Your task to perform on an android device: Open settings Image 0: 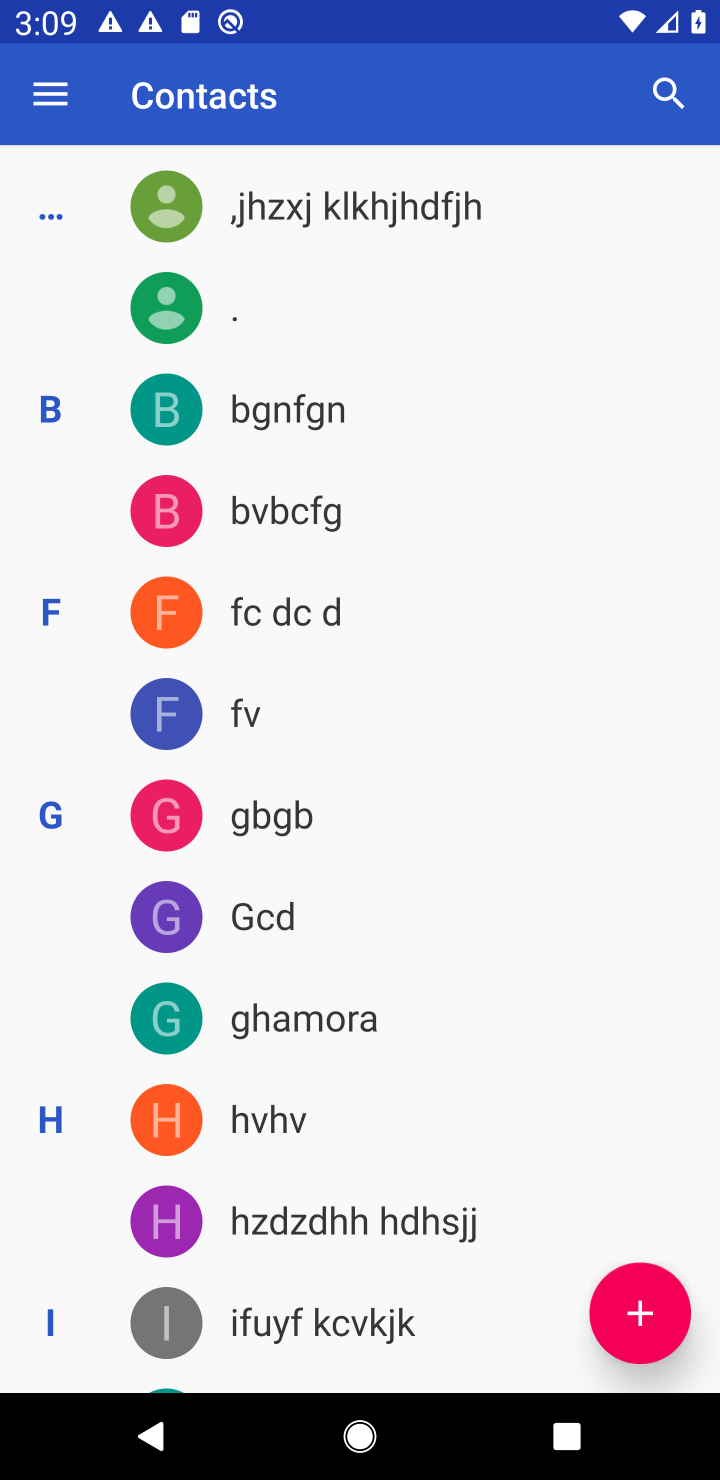
Step 0: press home button
Your task to perform on an android device: Open settings Image 1: 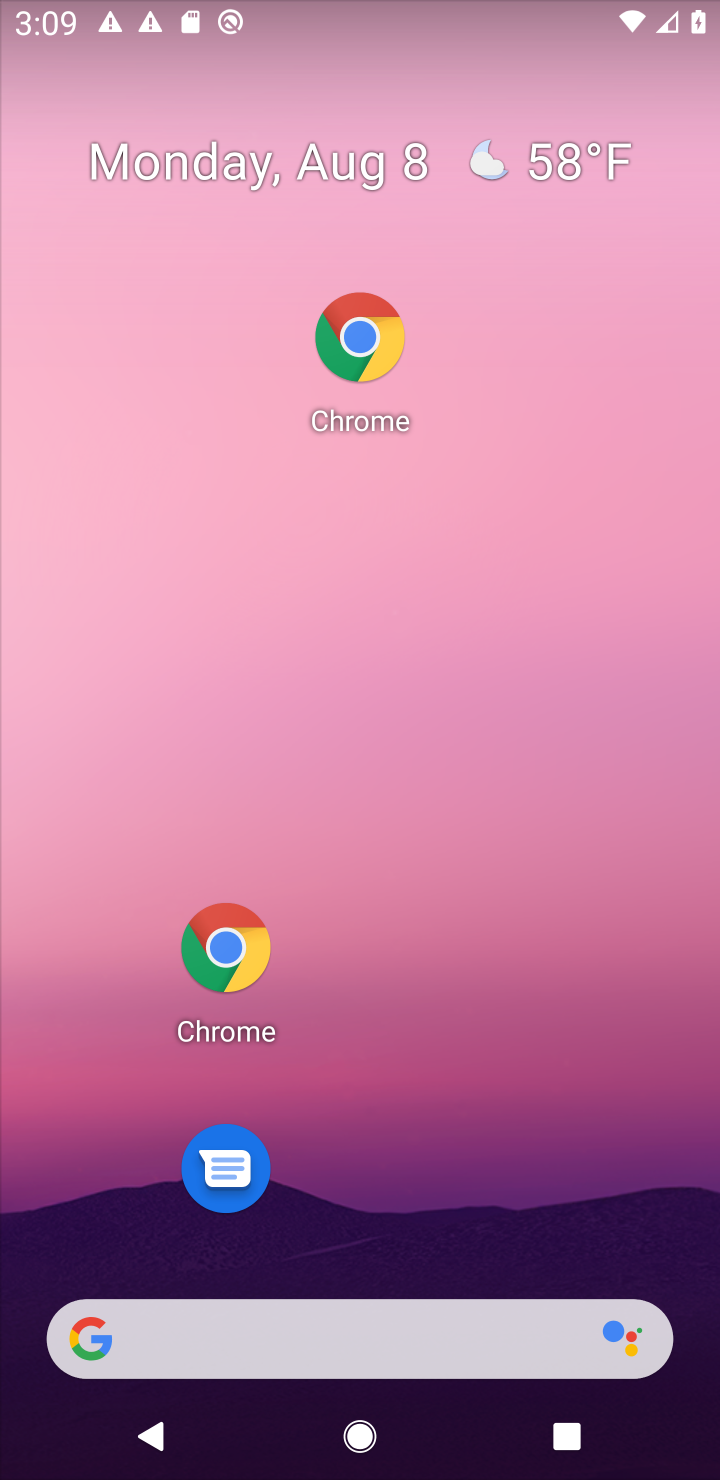
Step 1: drag from (536, 1263) to (493, 179)
Your task to perform on an android device: Open settings Image 2: 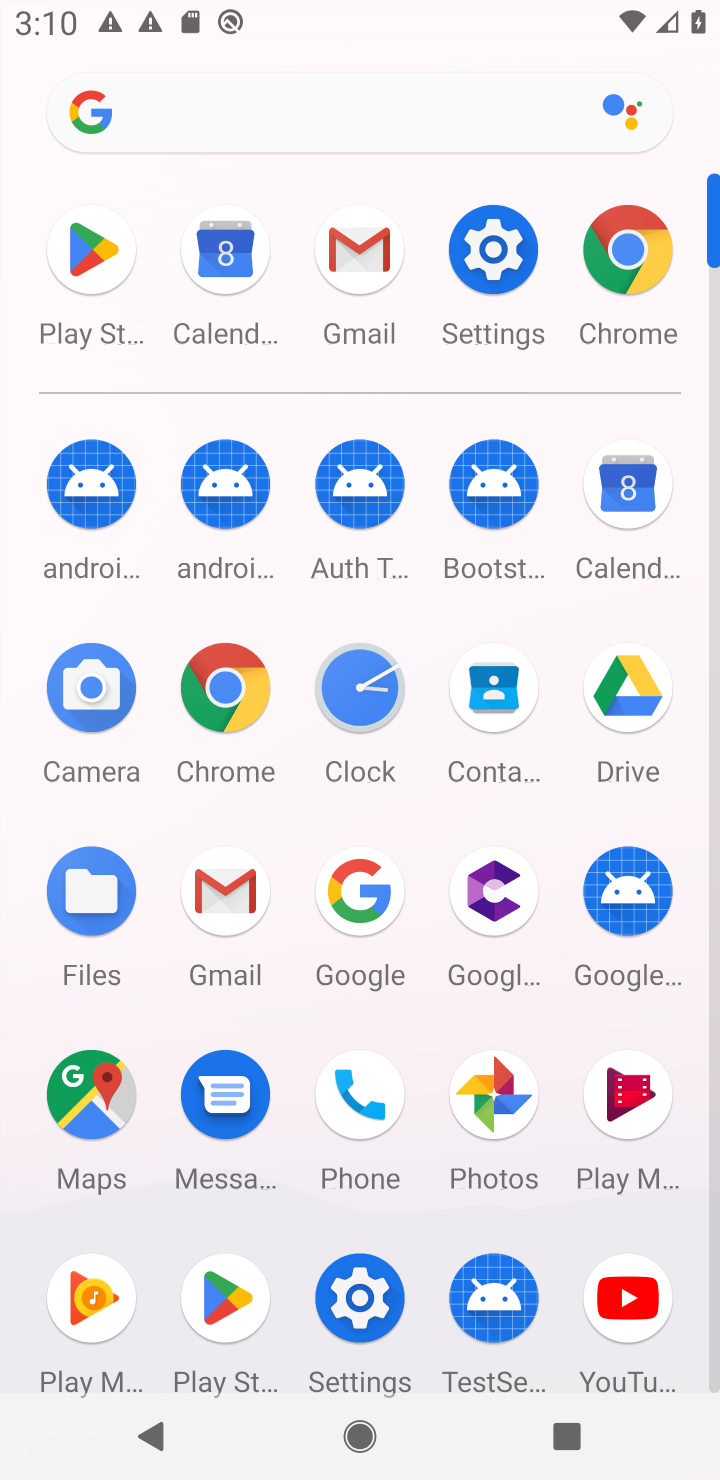
Step 2: click (469, 324)
Your task to perform on an android device: Open settings Image 3: 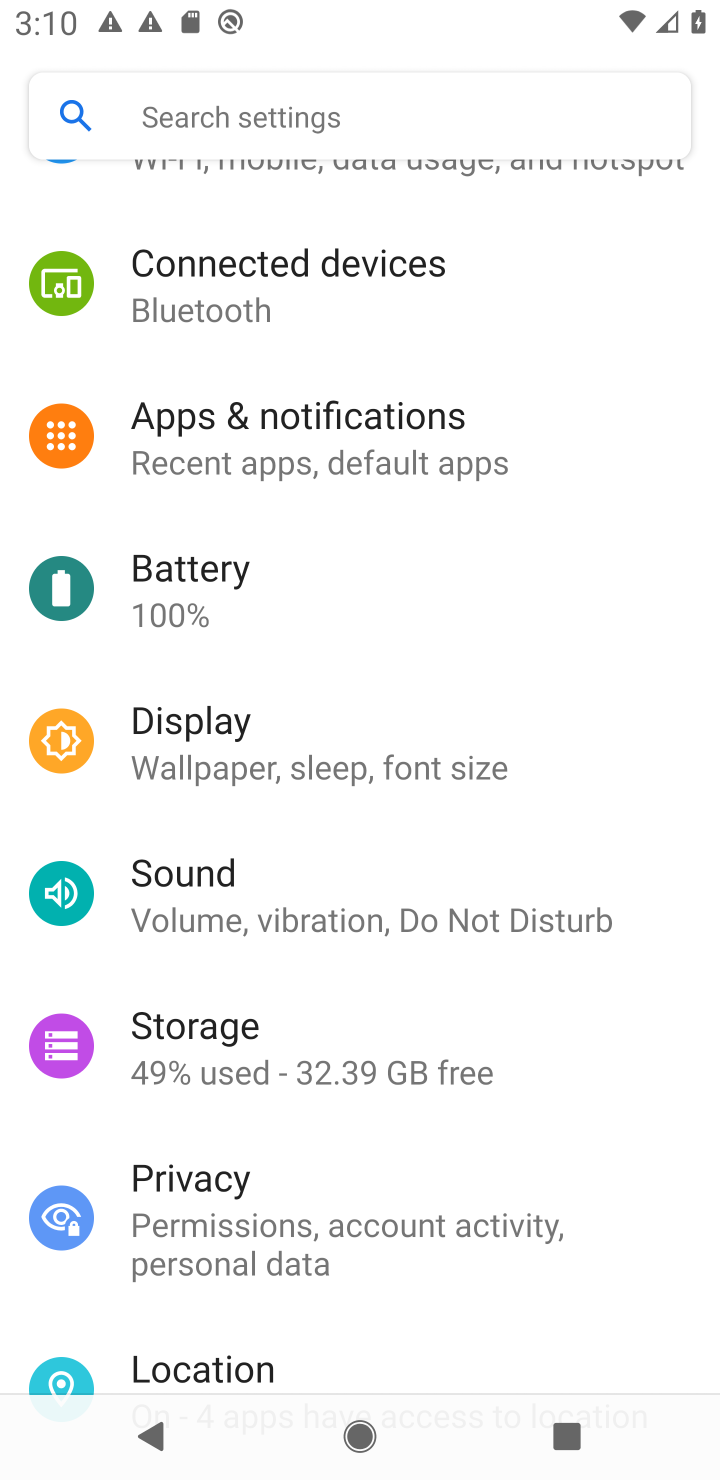
Step 3: task complete